Your task to perform on an android device: toggle priority inbox in the gmail app Image 0: 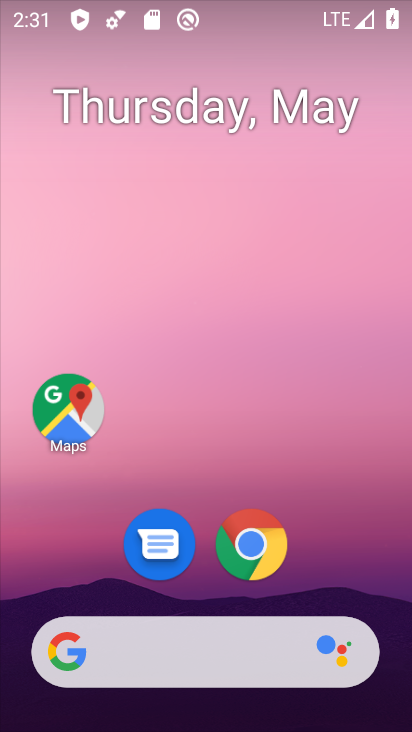
Step 0: drag from (177, 625) to (143, 279)
Your task to perform on an android device: toggle priority inbox in the gmail app Image 1: 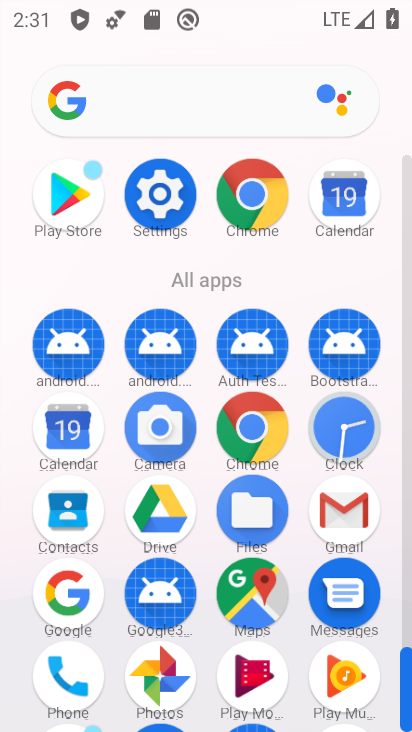
Step 1: click (359, 500)
Your task to perform on an android device: toggle priority inbox in the gmail app Image 2: 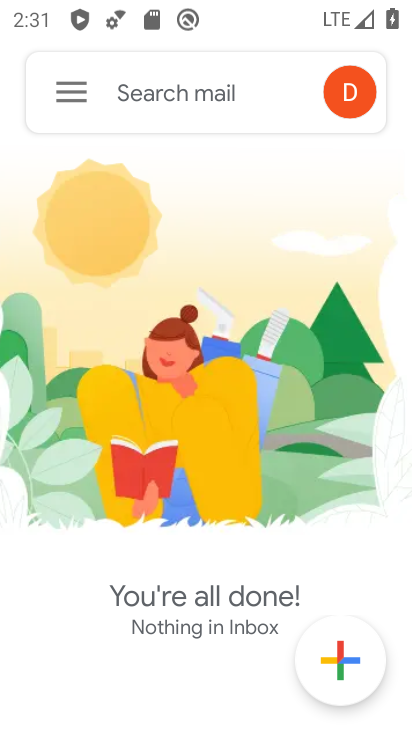
Step 2: click (80, 95)
Your task to perform on an android device: toggle priority inbox in the gmail app Image 3: 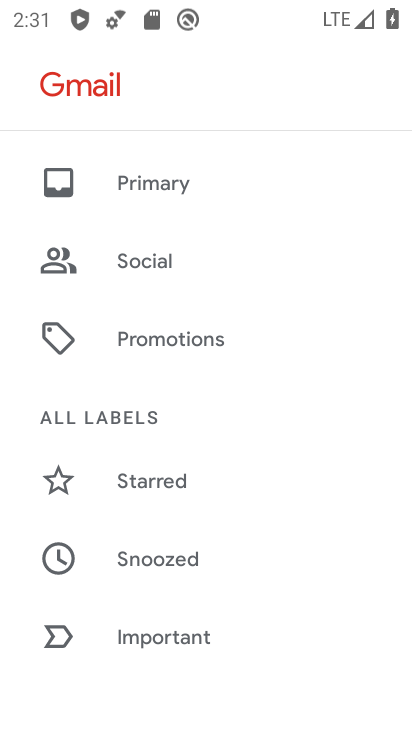
Step 3: drag from (188, 577) to (134, 0)
Your task to perform on an android device: toggle priority inbox in the gmail app Image 4: 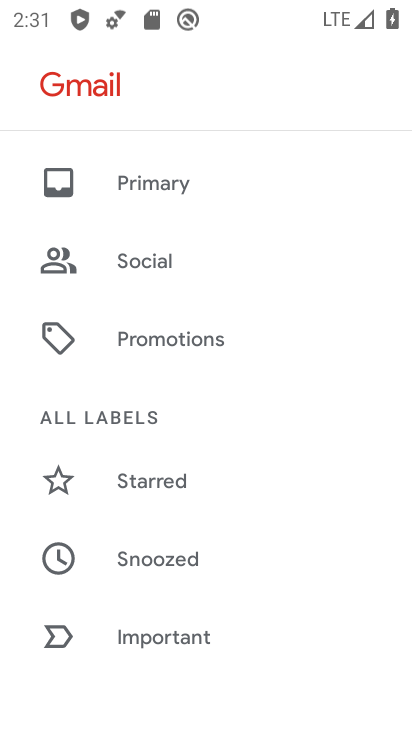
Step 4: drag from (172, 613) to (63, 5)
Your task to perform on an android device: toggle priority inbox in the gmail app Image 5: 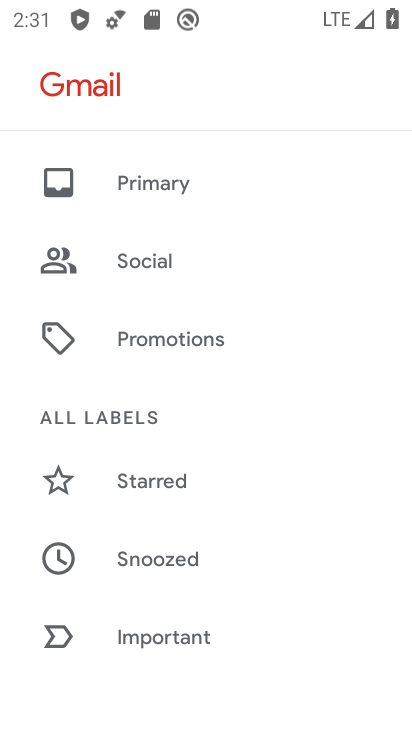
Step 5: drag from (50, 644) to (84, 16)
Your task to perform on an android device: toggle priority inbox in the gmail app Image 6: 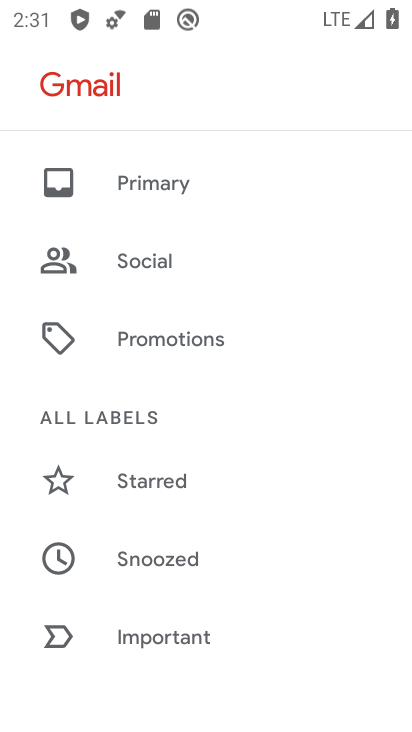
Step 6: drag from (176, 533) to (182, 7)
Your task to perform on an android device: toggle priority inbox in the gmail app Image 7: 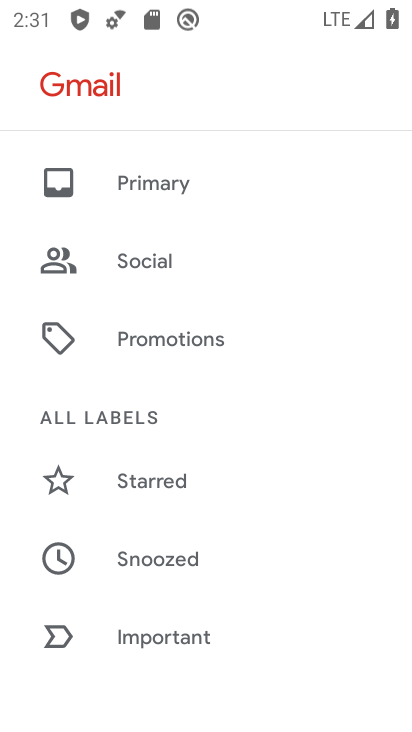
Step 7: drag from (178, 597) to (197, 19)
Your task to perform on an android device: toggle priority inbox in the gmail app Image 8: 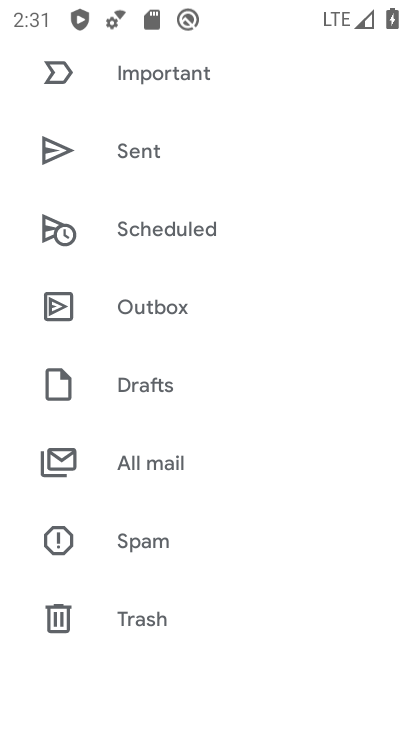
Step 8: drag from (161, 602) to (151, 32)
Your task to perform on an android device: toggle priority inbox in the gmail app Image 9: 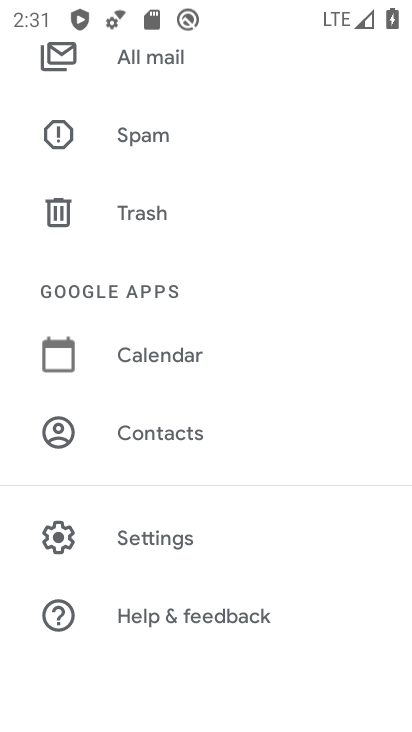
Step 9: click (135, 525)
Your task to perform on an android device: toggle priority inbox in the gmail app Image 10: 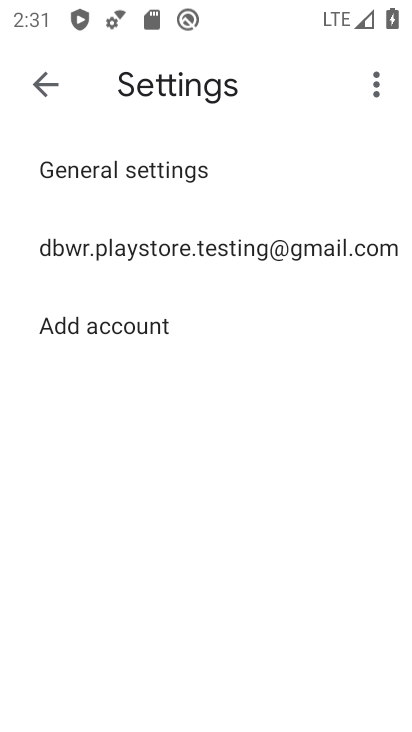
Step 10: click (273, 249)
Your task to perform on an android device: toggle priority inbox in the gmail app Image 11: 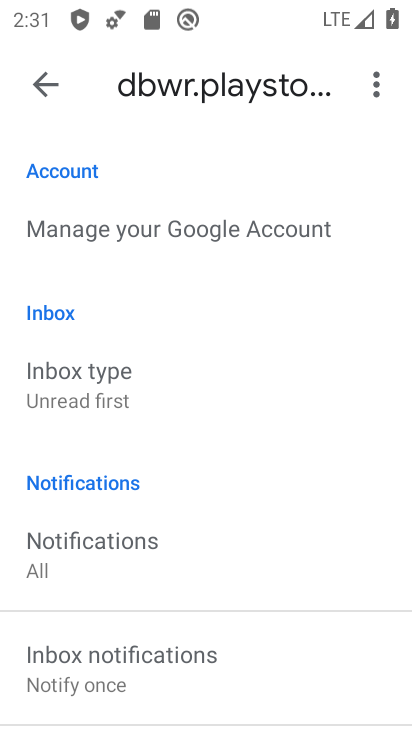
Step 11: click (117, 392)
Your task to perform on an android device: toggle priority inbox in the gmail app Image 12: 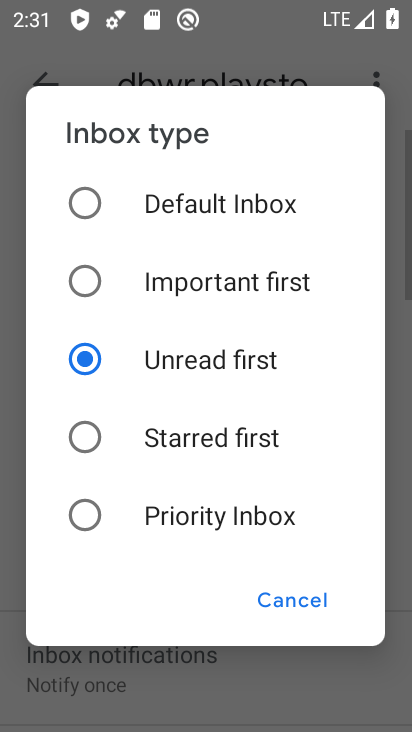
Step 12: click (232, 506)
Your task to perform on an android device: toggle priority inbox in the gmail app Image 13: 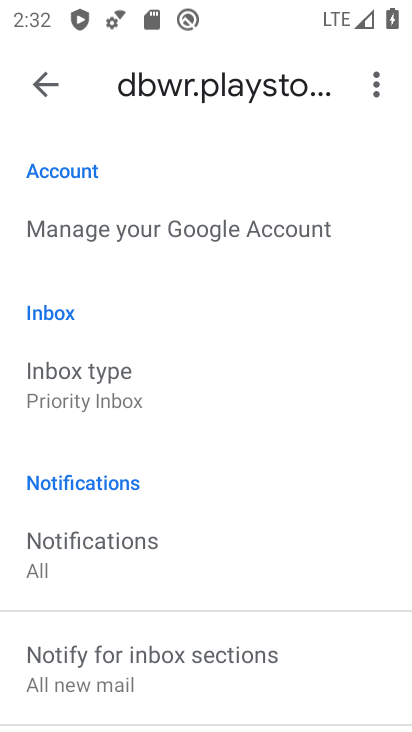
Step 13: task complete